Your task to perform on an android device: toggle pop-ups in chrome Image 0: 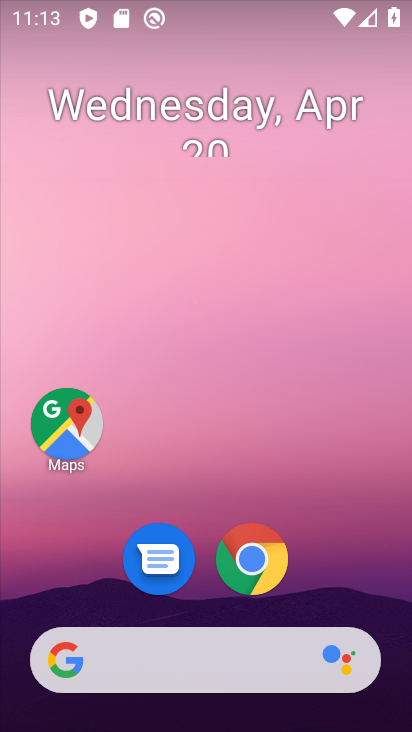
Step 0: click (260, 560)
Your task to perform on an android device: toggle pop-ups in chrome Image 1: 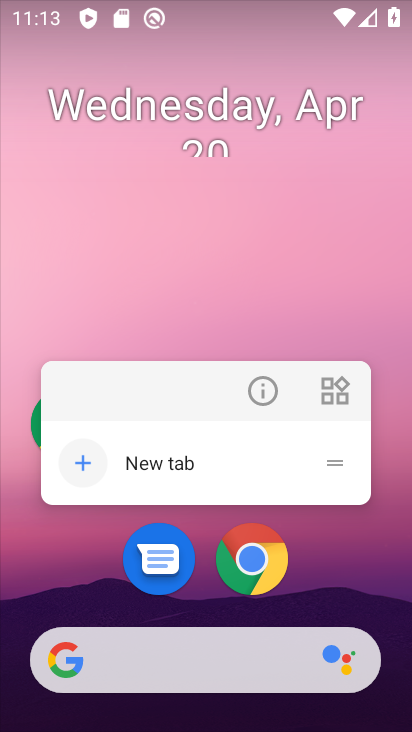
Step 1: click (267, 577)
Your task to perform on an android device: toggle pop-ups in chrome Image 2: 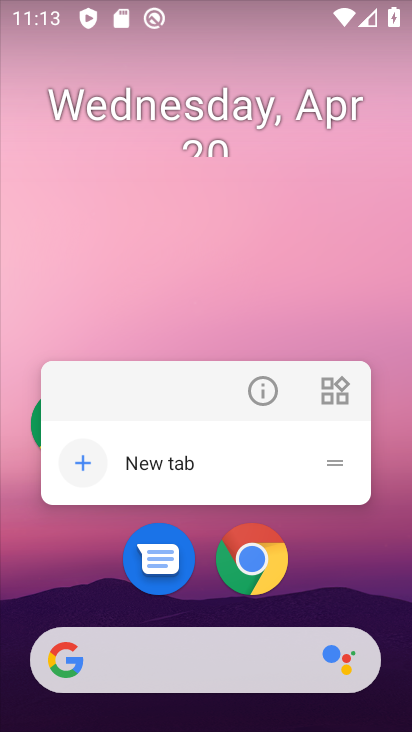
Step 2: click (263, 570)
Your task to perform on an android device: toggle pop-ups in chrome Image 3: 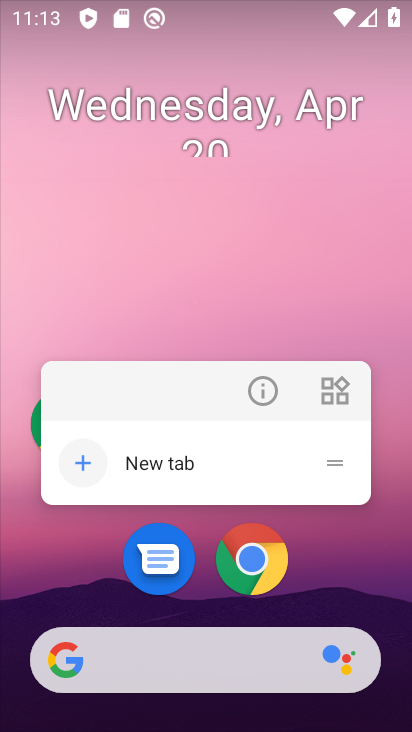
Step 3: click (263, 570)
Your task to perform on an android device: toggle pop-ups in chrome Image 4: 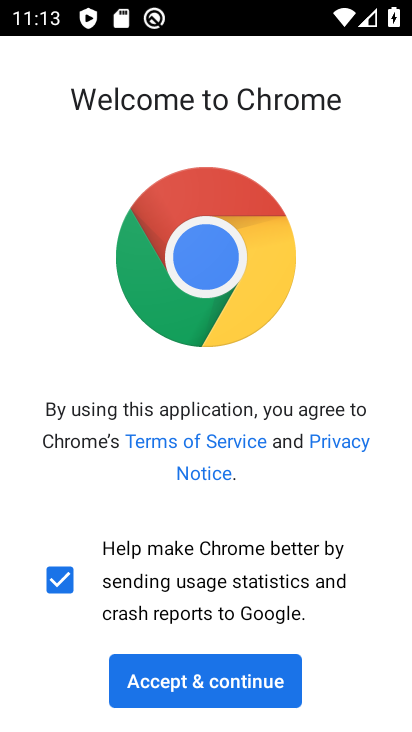
Step 4: click (202, 698)
Your task to perform on an android device: toggle pop-ups in chrome Image 5: 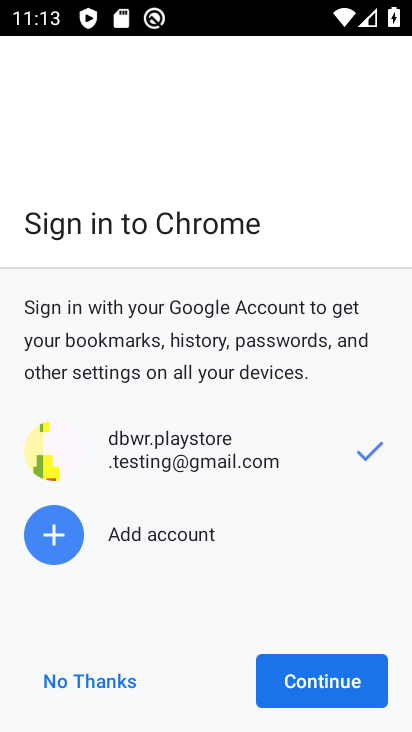
Step 5: click (336, 669)
Your task to perform on an android device: toggle pop-ups in chrome Image 6: 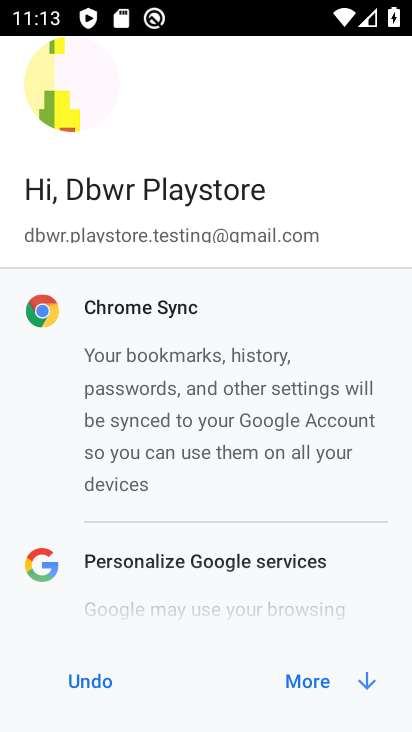
Step 6: click (336, 669)
Your task to perform on an android device: toggle pop-ups in chrome Image 7: 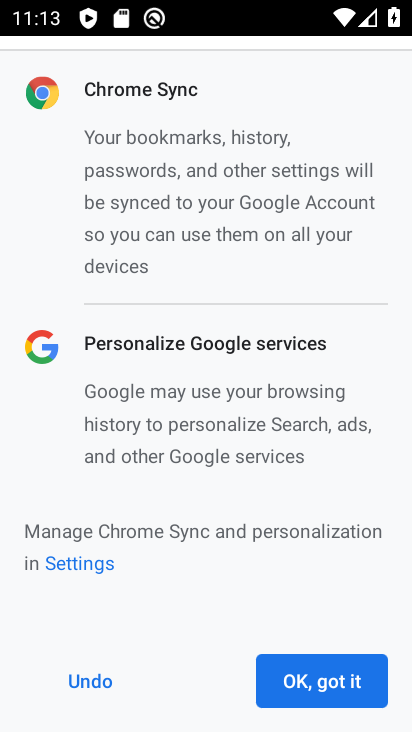
Step 7: click (336, 669)
Your task to perform on an android device: toggle pop-ups in chrome Image 8: 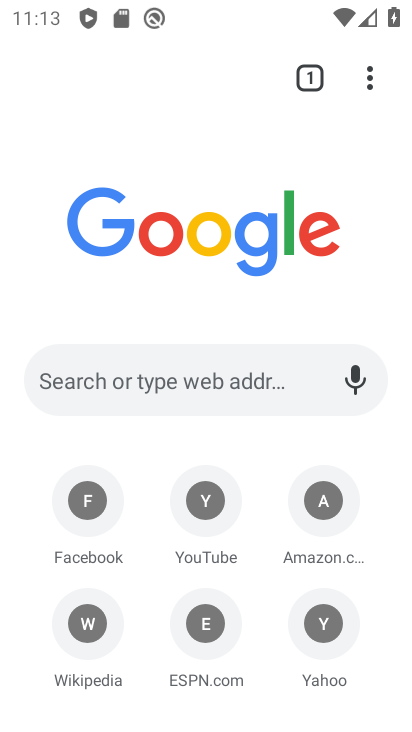
Step 8: click (370, 84)
Your task to perform on an android device: toggle pop-ups in chrome Image 9: 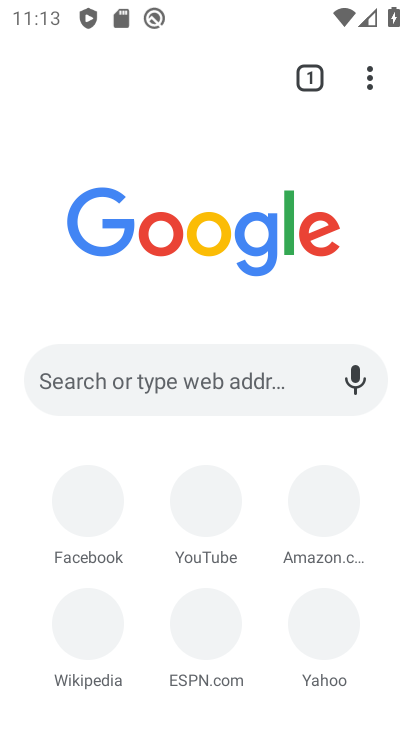
Step 9: click (370, 84)
Your task to perform on an android device: toggle pop-ups in chrome Image 10: 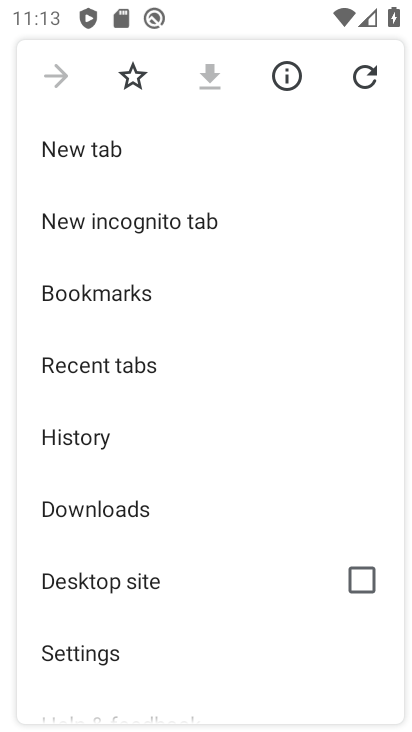
Step 10: click (94, 653)
Your task to perform on an android device: toggle pop-ups in chrome Image 11: 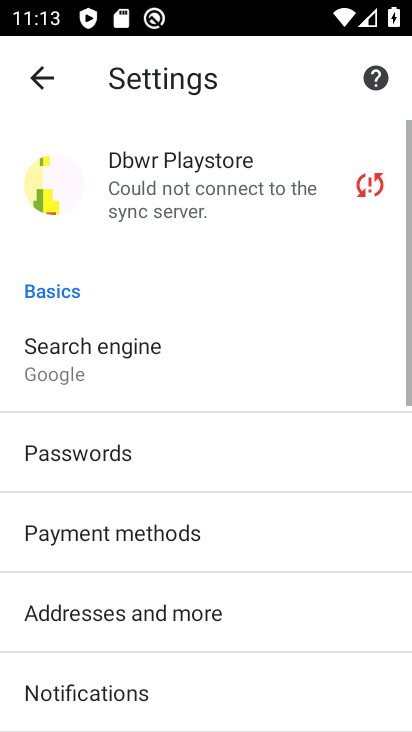
Step 11: drag from (224, 396) to (218, 176)
Your task to perform on an android device: toggle pop-ups in chrome Image 12: 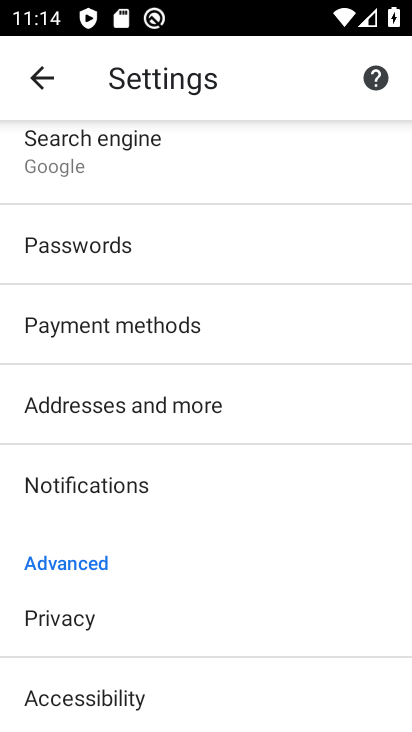
Step 12: drag from (175, 672) to (207, 206)
Your task to perform on an android device: toggle pop-ups in chrome Image 13: 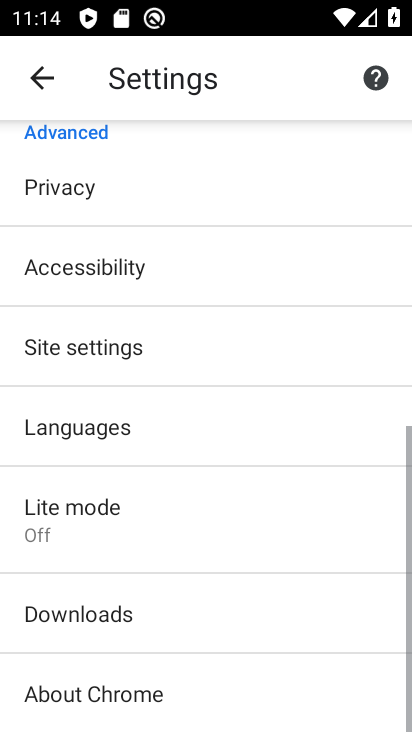
Step 13: click (118, 345)
Your task to perform on an android device: toggle pop-ups in chrome Image 14: 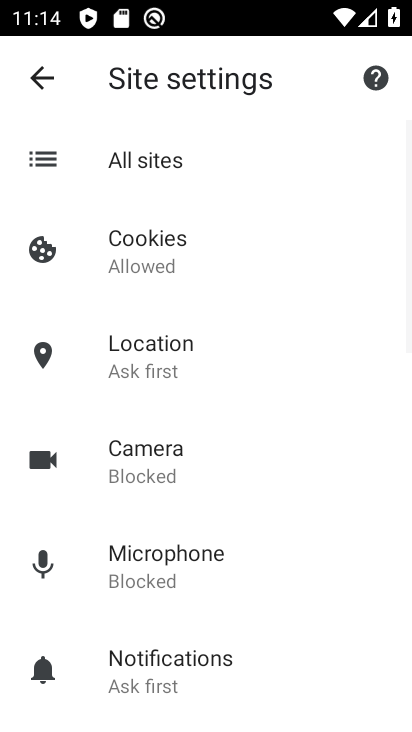
Step 14: drag from (252, 468) to (248, 157)
Your task to perform on an android device: toggle pop-ups in chrome Image 15: 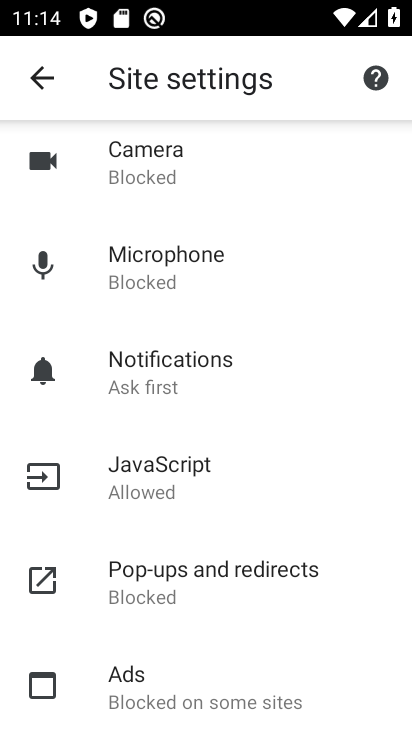
Step 15: click (244, 576)
Your task to perform on an android device: toggle pop-ups in chrome Image 16: 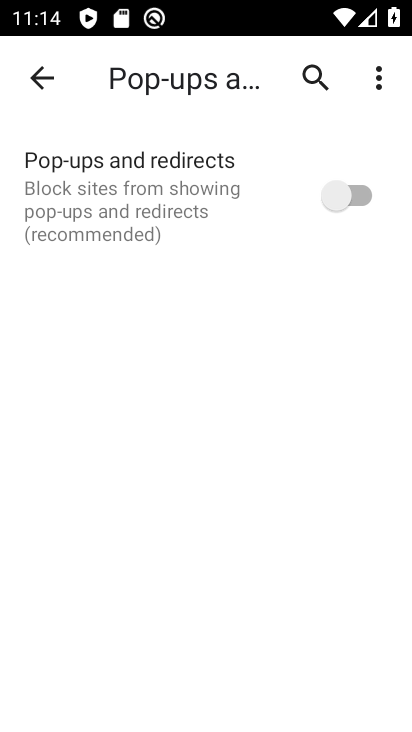
Step 16: click (345, 194)
Your task to perform on an android device: toggle pop-ups in chrome Image 17: 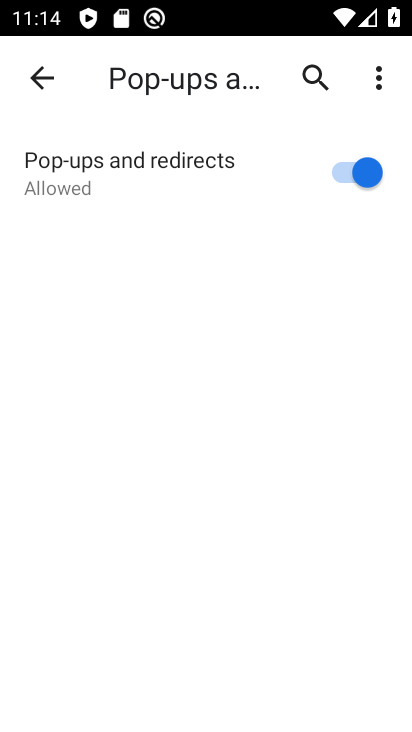
Step 17: task complete